Your task to perform on an android device: Search for pizza restaurants on Maps Image 0: 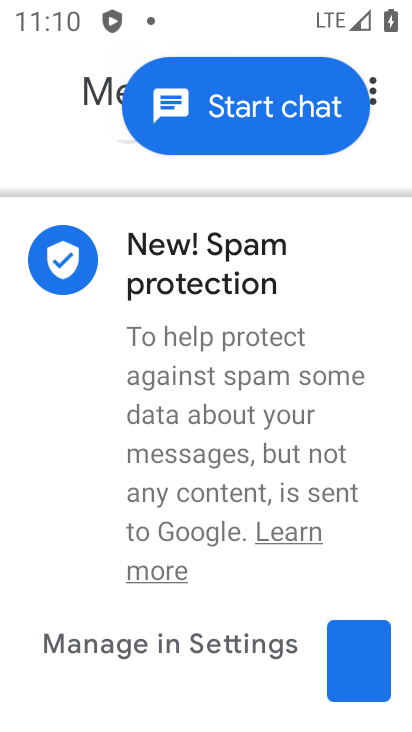
Step 0: press home button
Your task to perform on an android device: Search for pizza restaurants on Maps Image 1: 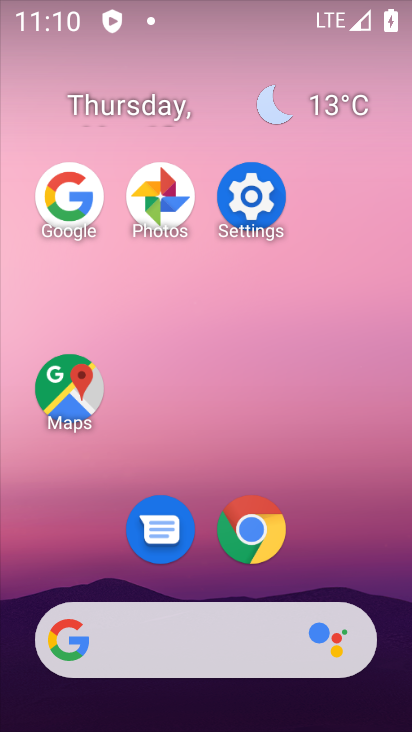
Step 1: click (77, 393)
Your task to perform on an android device: Search for pizza restaurants on Maps Image 2: 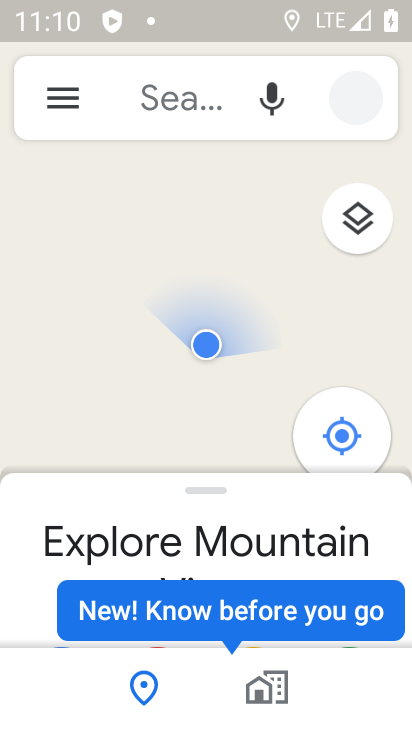
Step 2: click (156, 107)
Your task to perform on an android device: Search for pizza restaurants on Maps Image 3: 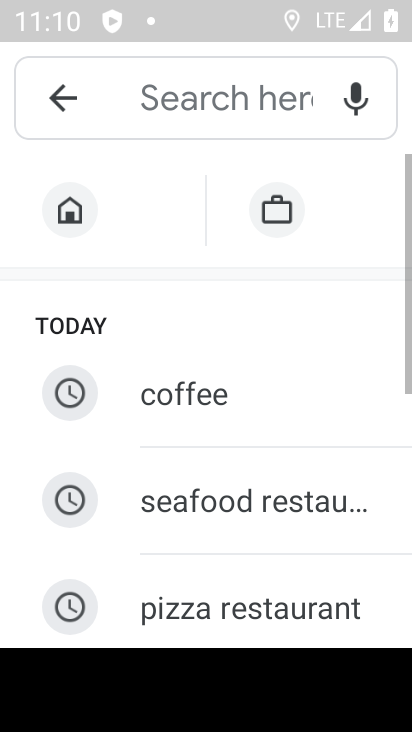
Step 3: drag from (288, 552) to (305, 269)
Your task to perform on an android device: Search for pizza restaurants on Maps Image 4: 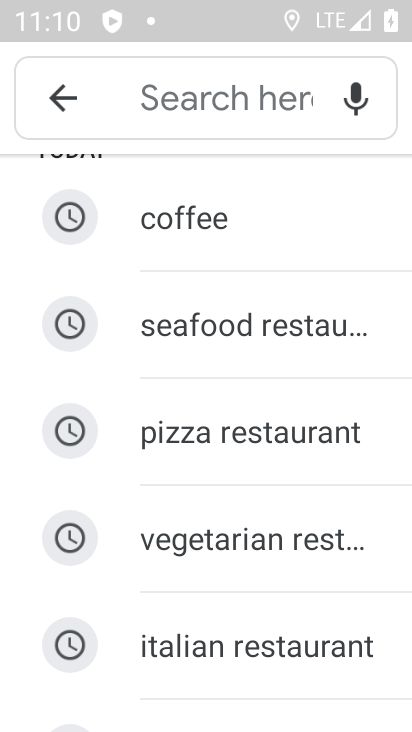
Step 4: click (305, 441)
Your task to perform on an android device: Search for pizza restaurants on Maps Image 5: 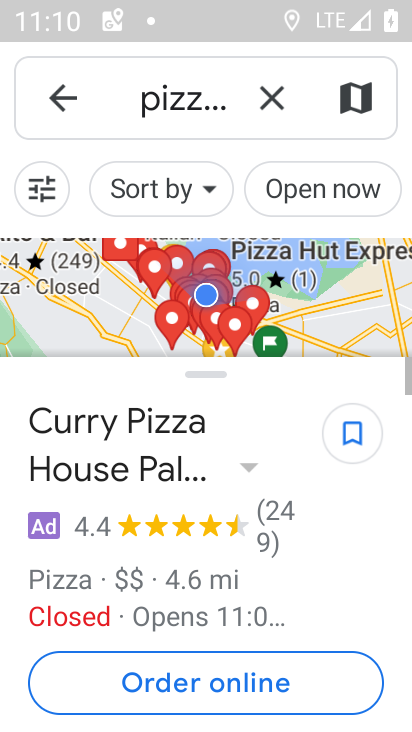
Step 5: task complete